Your task to perform on an android device: Open calendar and show me the first week of next month Image 0: 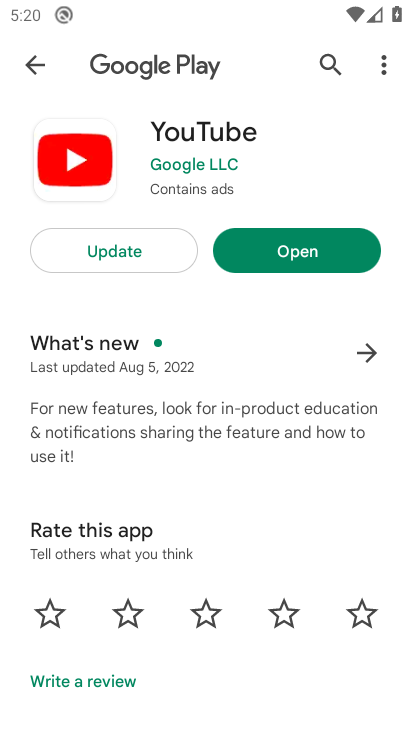
Step 0: press back button
Your task to perform on an android device: Open calendar and show me the first week of next month Image 1: 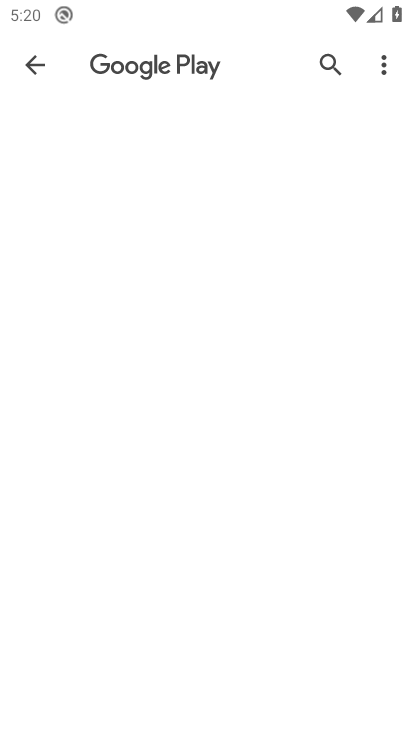
Step 1: press back button
Your task to perform on an android device: Open calendar and show me the first week of next month Image 2: 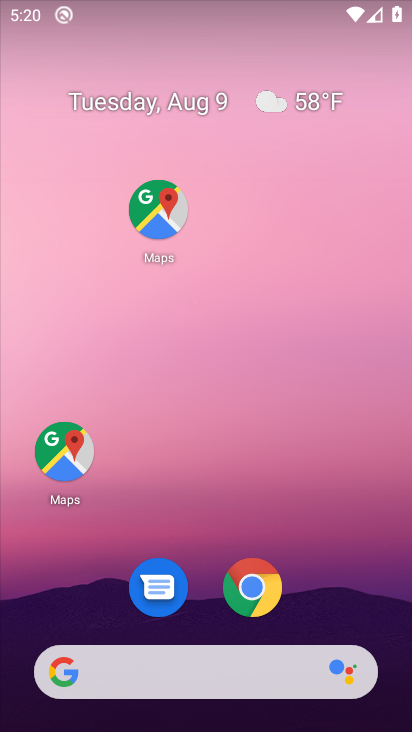
Step 2: drag from (196, 306) to (181, 36)
Your task to perform on an android device: Open calendar and show me the first week of next month Image 3: 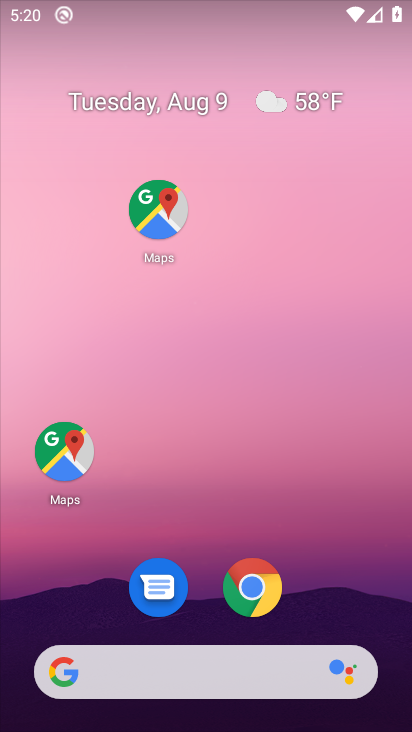
Step 3: drag from (204, 454) to (148, 116)
Your task to perform on an android device: Open calendar and show me the first week of next month Image 4: 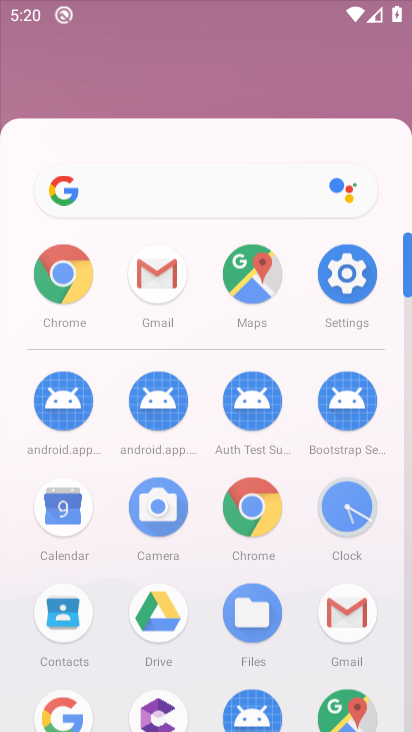
Step 4: drag from (171, 344) to (129, 116)
Your task to perform on an android device: Open calendar and show me the first week of next month Image 5: 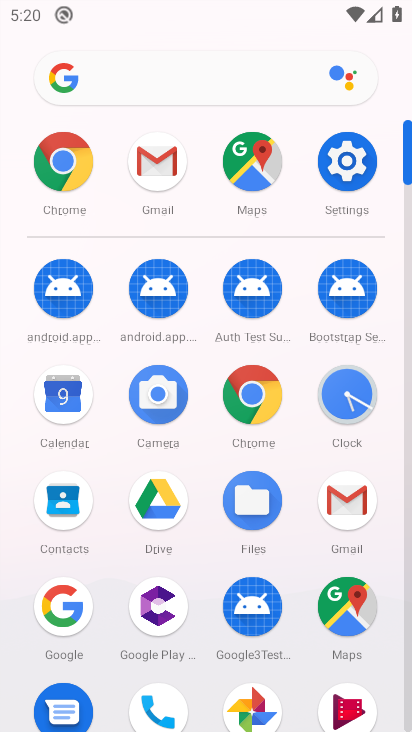
Step 5: click (63, 385)
Your task to perform on an android device: Open calendar and show me the first week of next month Image 6: 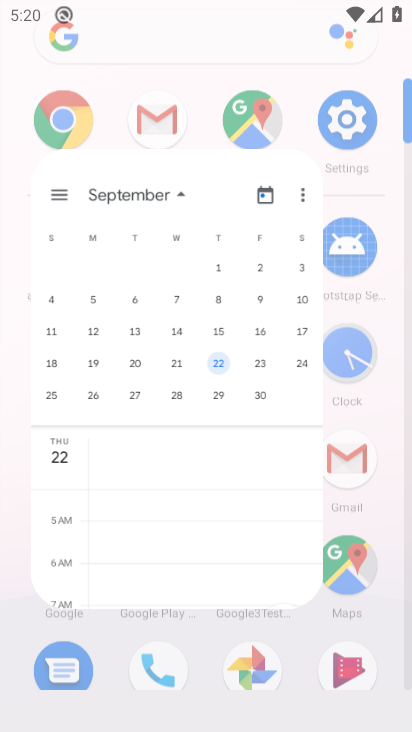
Step 6: click (65, 385)
Your task to perform on an android device: Open calendar and show me the first week of next month Image 7: 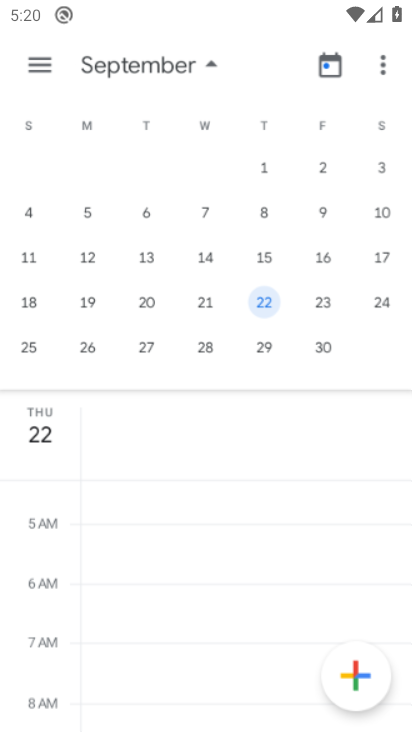
Step 7: click (66, 386)
Your task to perform on an android device: Open calendar and show me the first week of next month Image 8: 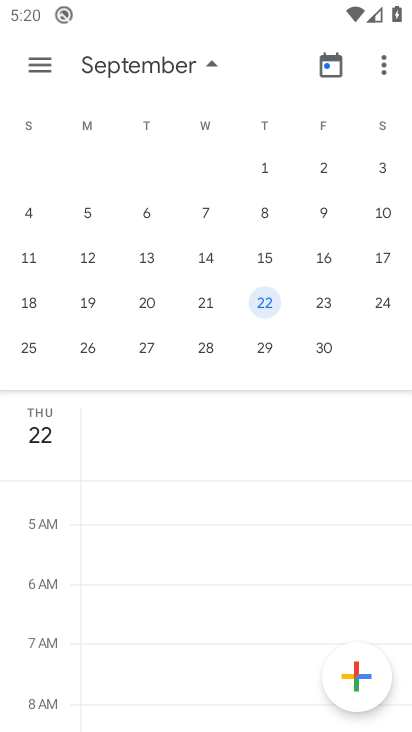
Step 8: click (270, 162)
Your task to perform on an android device: Open calendar and show me the first week of next month Image 9: 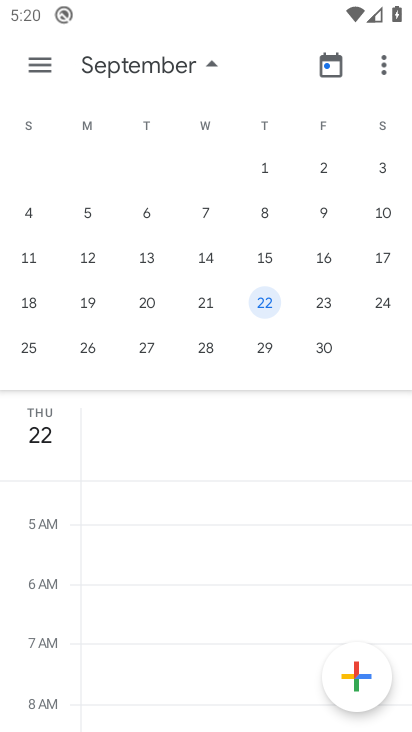
Step 9: click (269, 161)
Your task to perform on an android device: Open calendar and show me the first week of next month Image 10: 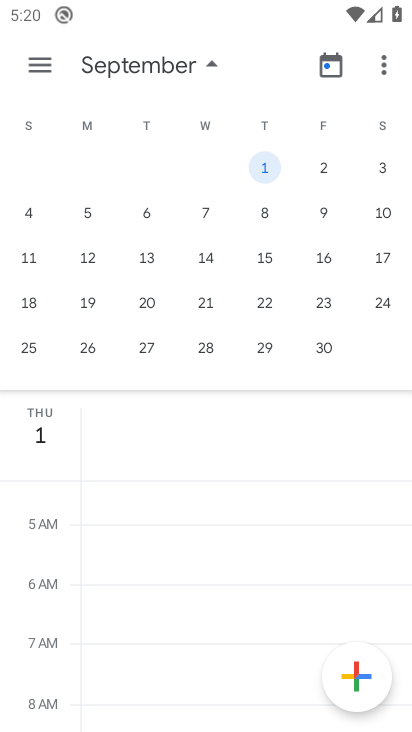
Step 10: click (269, 160)
Your task to perform on an android device: Open calendar and show me the first week of next month Image 11: 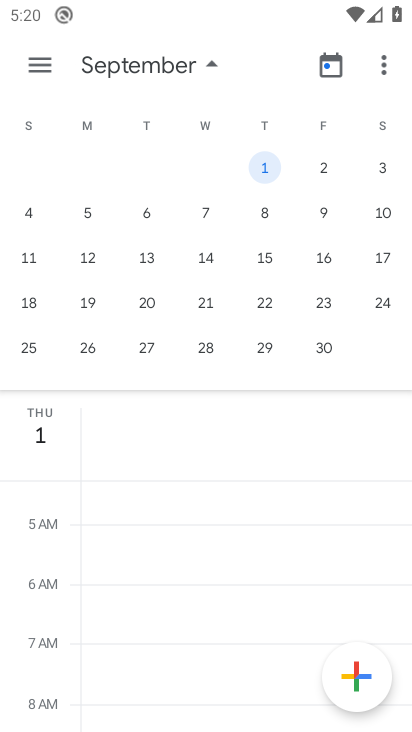
Step 11: task complete